Your task to perform on an android device: Open Yahoo.com Image 0: 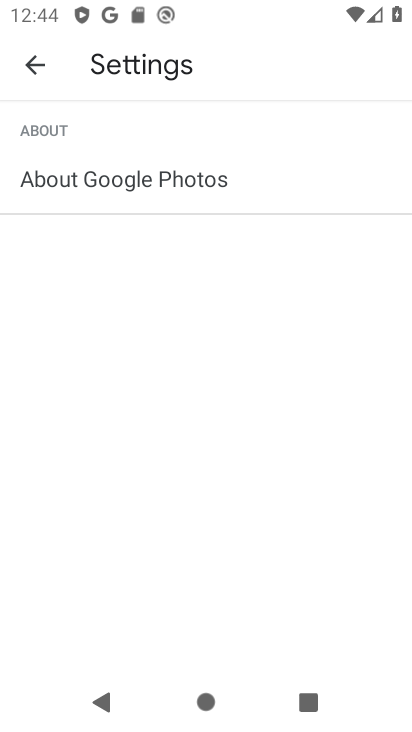
Step 0: press home button
Your task to perform on an android device: Open Yahoo.com Image 1: 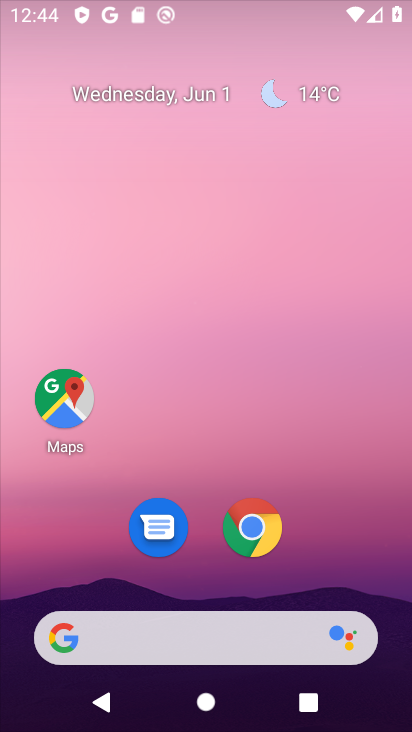
Step 1: drag from (222, 590) to (280, 138)
Your task to perform on an android device: Open Yahoo.com Image 2: 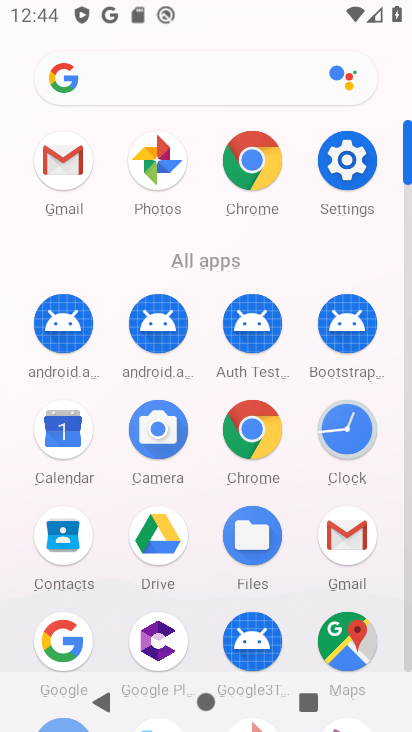
Step 2: click (260, 186)
Your task to perform on an android device: Open Yahoo.com Image 3: 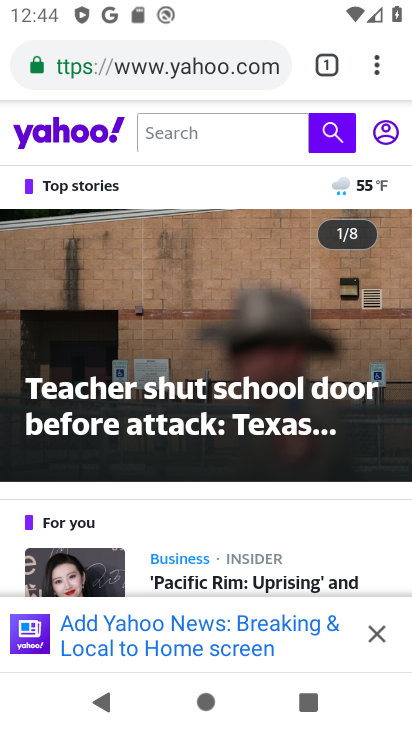
Step 3: task complete